Your task to perform on an android device: turn on improve location accuracy Image 0: 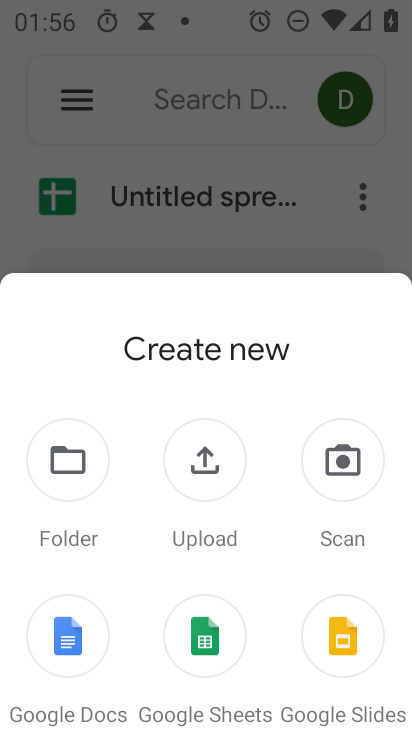
Step 0: press home button
Your task to perform on an android device: turn on improve location accuracy Image 1: 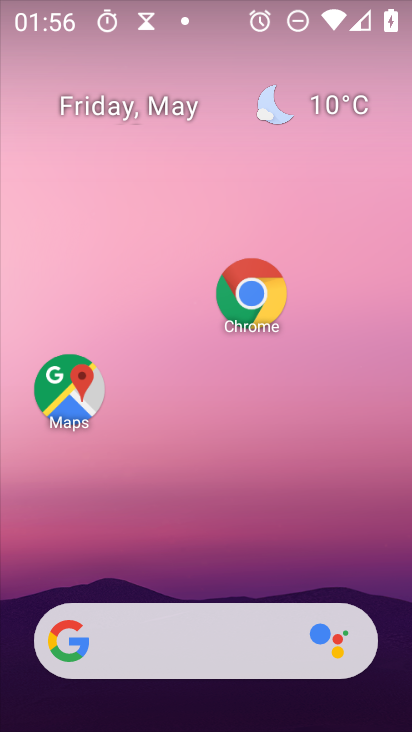
Step 1: drag from (149, 646) to (303, 157)
Your task to perform on an android device: turn on improve location accuracy Image 2: 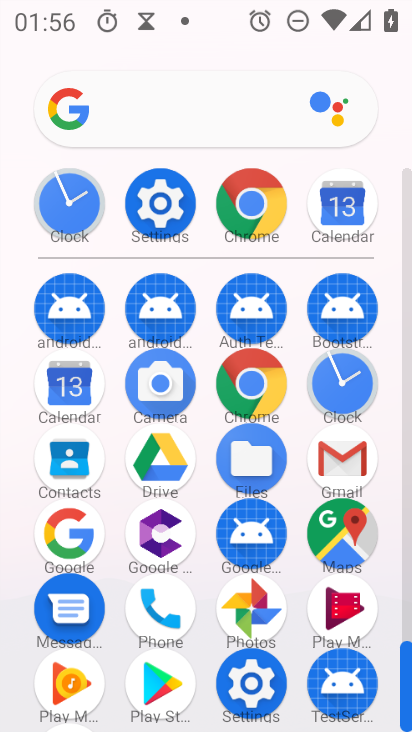
Step 2: click (176, 215)
Your task to perform on an android device: turn on improve location accuracy Image 3: 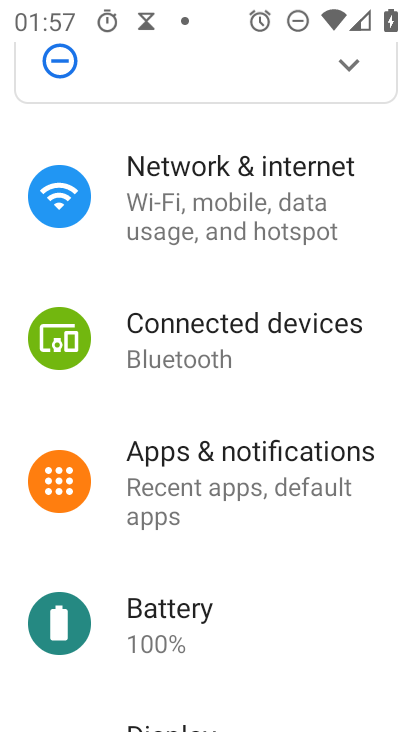
Step 3: drag from (226, 628) to (361, 88)
Your task to perform on an android device: turn on improve location accuracy Image 4: 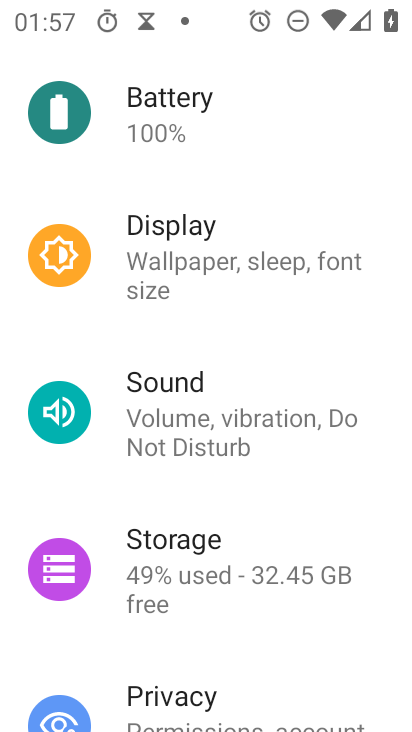
Step 4: drag from (207, 651) to (345, 139)
Your task to perform on an android device: turn on improve location accuracy Image 5: 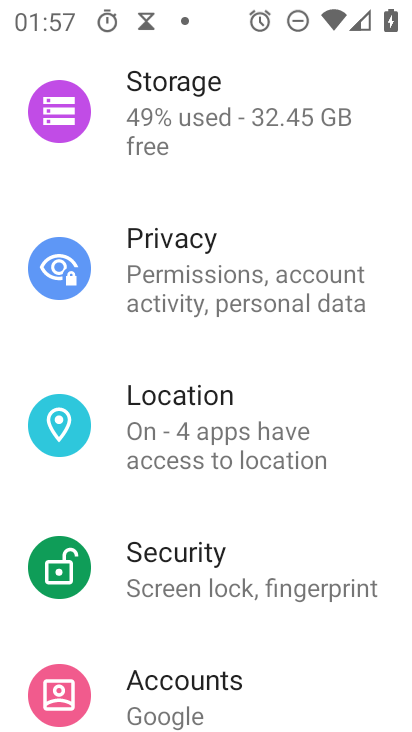
Step 5: click (211, 424)
Your task to perform on an android device: turn on improve location accuracy Image 6: 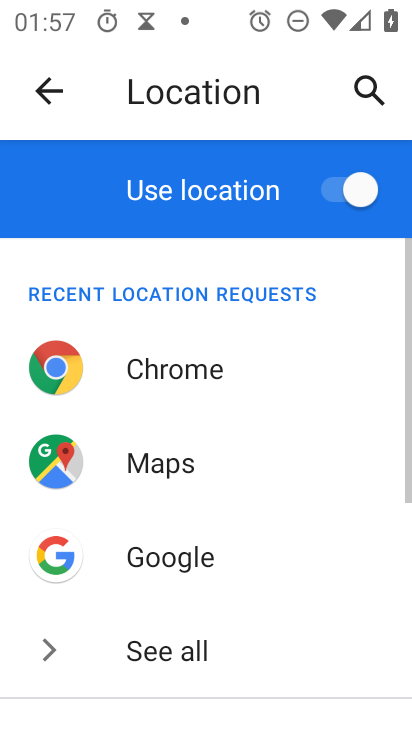
Step 6: drag from (277, 625) to (348, 232)
Your task to perform on an android device: turn on improve location accuracy Image 7: 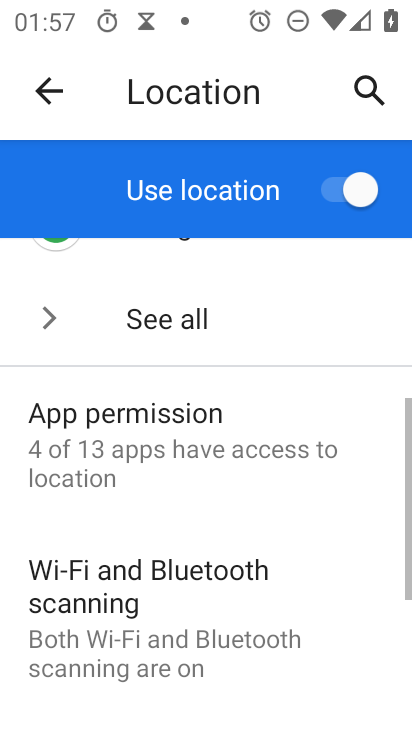
Step 7: drag from (189, 614) to (320, 149)
Your task to perform on an android device: turn on improve location accuracy Image 8: 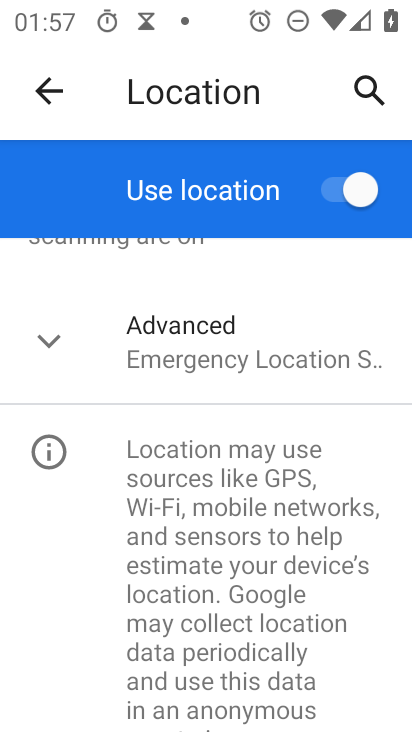
Step 8: click (199, 335)
Your task to perform on an android device: turn on improve location accuracy Image 9: 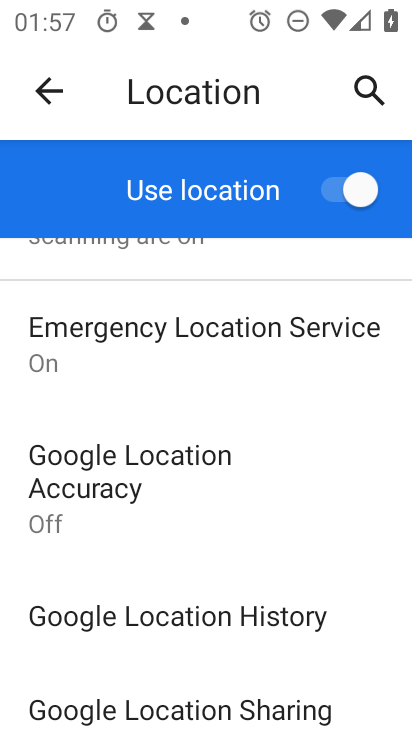
Step 9: click (91, 478)
Your task to perform on an android device: turn on improve location accuracy Image 10: 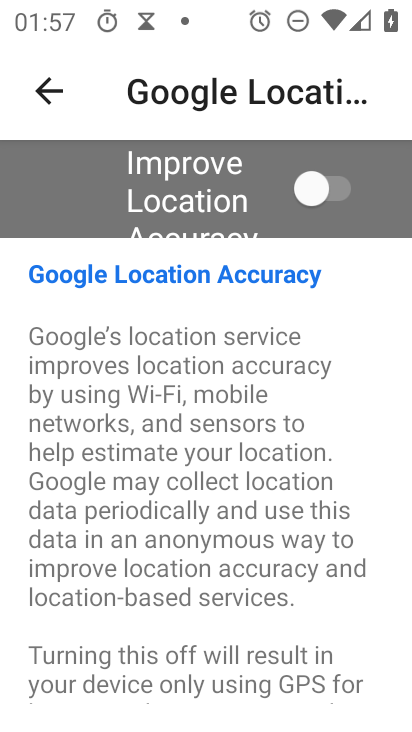
Step 10: click (349, 189)
Your task to perform on an android device: turn on improve location accuracy Image 11: 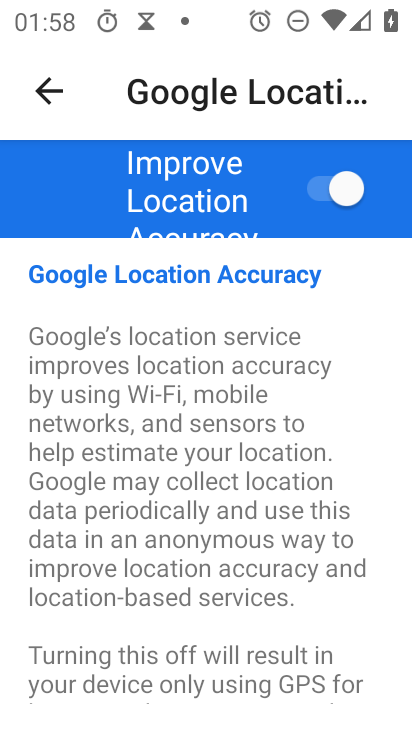
Step 11: task complete